Your task to perform on an android device: turn off notifications settings in the gmail app Image 0: 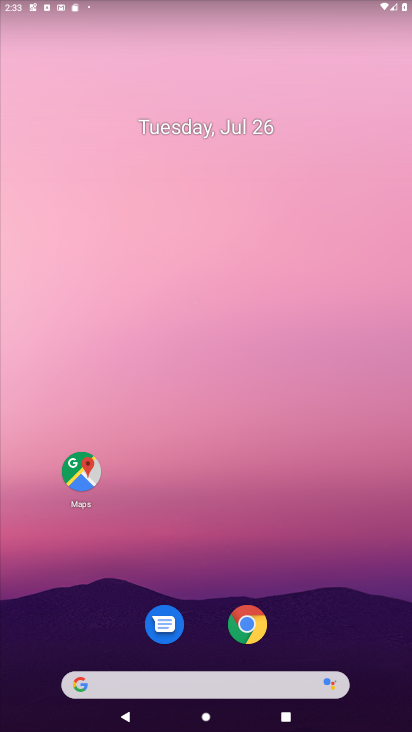
Step 0: drag from (183, 662) to (167, 134)
Your task to perform on an android device: turn off notifications settings in the gmail app Image 1: 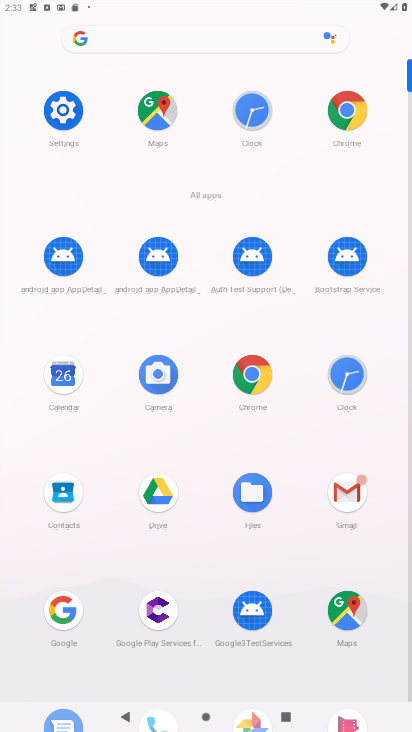
Step 1: click (342, 489)
Your task to perform on an android device: turn off notifications settings in the gmail app Image 2: 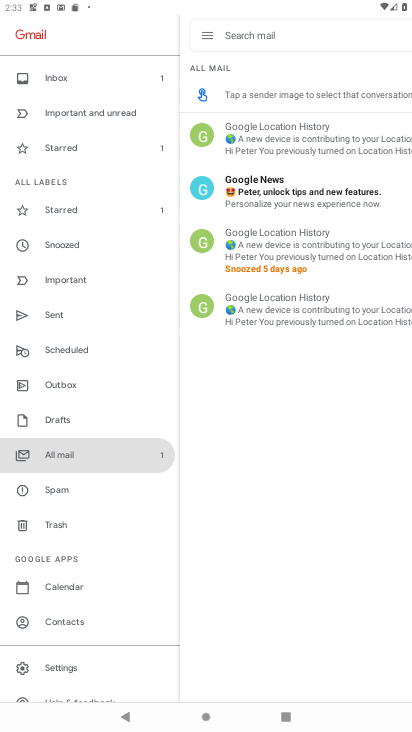
Step 2: click (65, 668)
Your task to perform on an android device: turn off notifications settings in the gmail app Image 3: 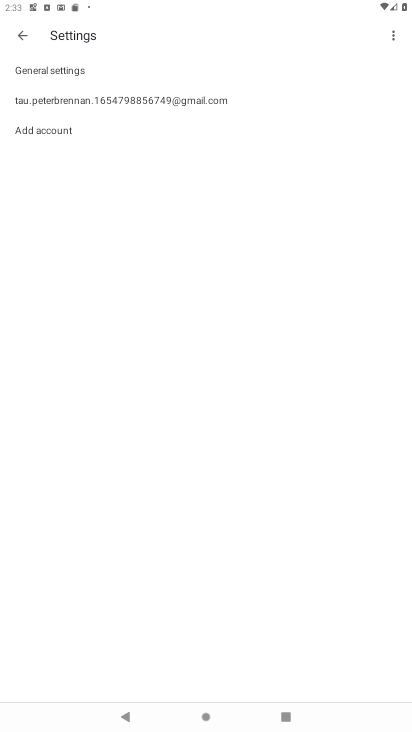
Step 3: click (61, 104)
Your task to perform on an android device: turn off notifications settings in the gmail app Image 4: 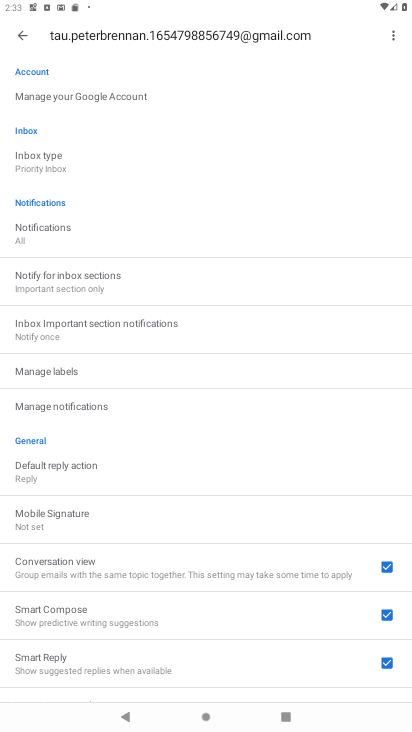
Step 4: click (82, 402)
Your task to perform on an android device: turn off notifications settings in the gmail app Image 5: 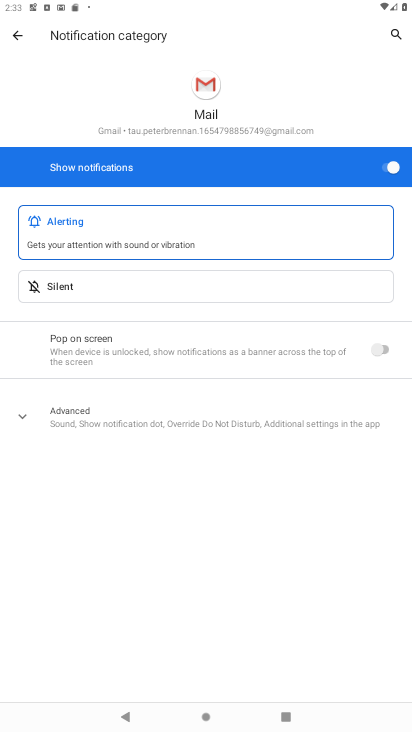
Step 5: click (387, 164)
Your task to perform on an android device: turn off notifications settings in the gmail app Image 6: 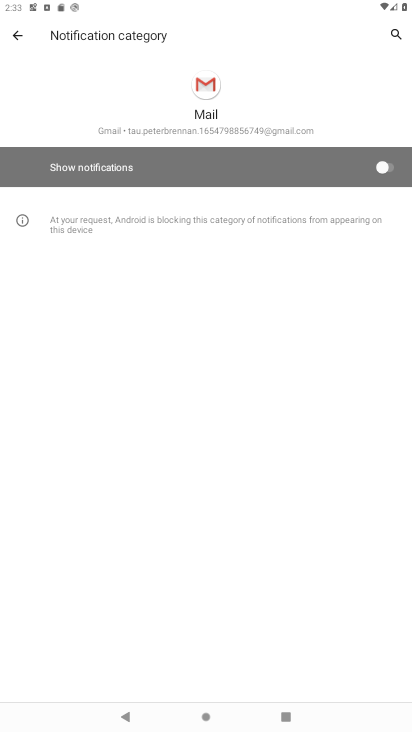
Step 6: task complete